Your task to perform on an android device: Go to Google maps Image 0: 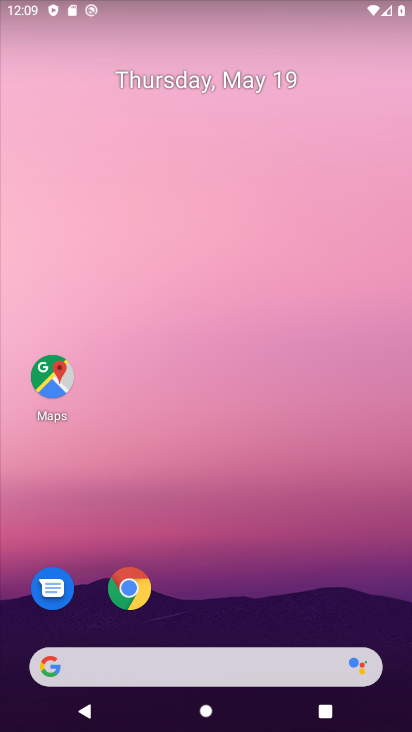
Step 0: click (56, 376)
Your task to perform on an android device: Go to Google maps Image 1: 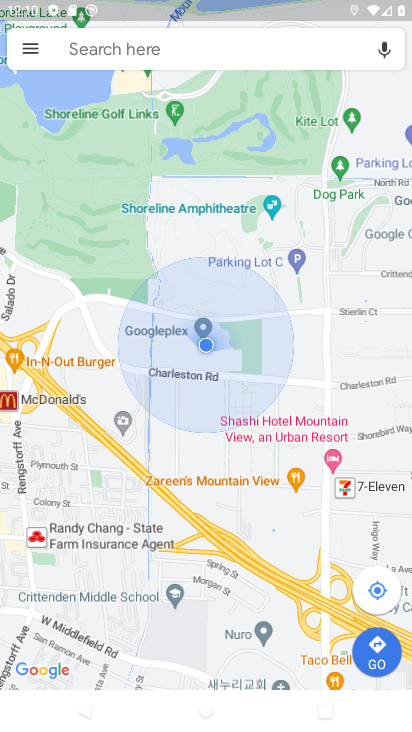
Step 1: task complete